Your task to perform on an android device: Open wifi settings Image 0: 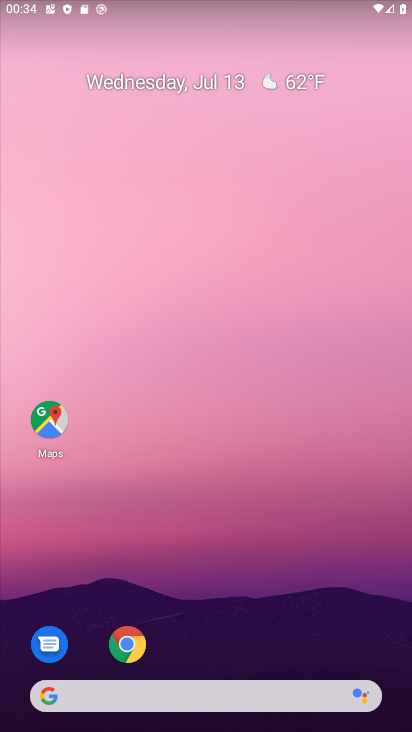
Step 0: drag from (186, 653) to (241, 0)
Your task to perform on an android device: Open wifi settings Image 1: 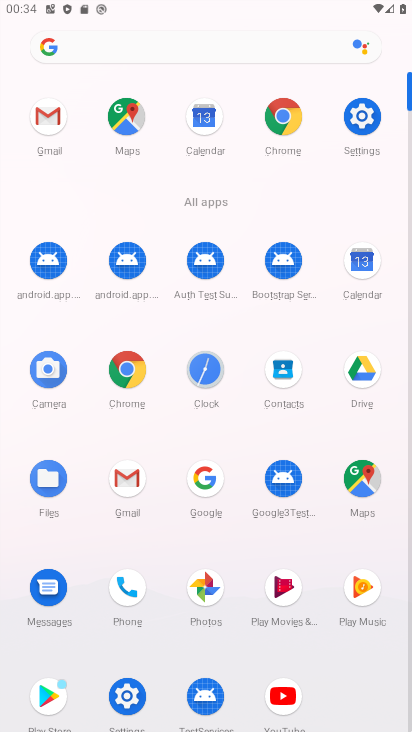
Step 1: click (353, 154)
Your task to perform on an android device: Open wifi settings Image 2: 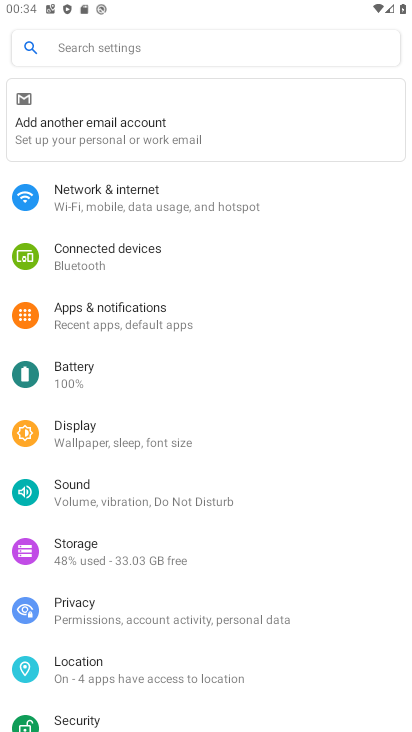
Step 2: click (146, 202)
Your task to perform on an android device: Open wifi settings Image 3: 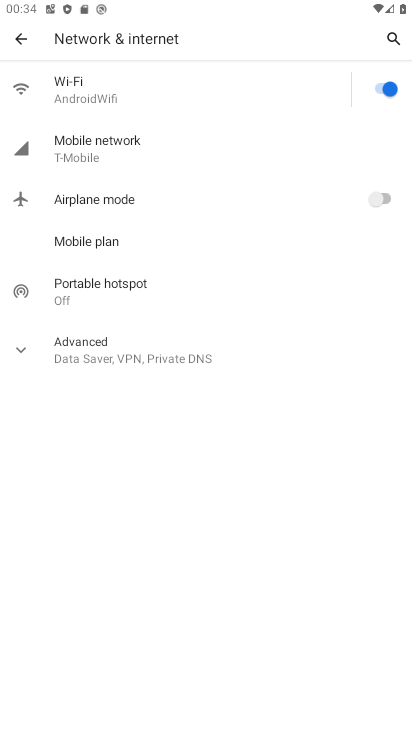
Step 3: click (98, 95)
Your task to perform on an android device: Open wifi settings Image 4: 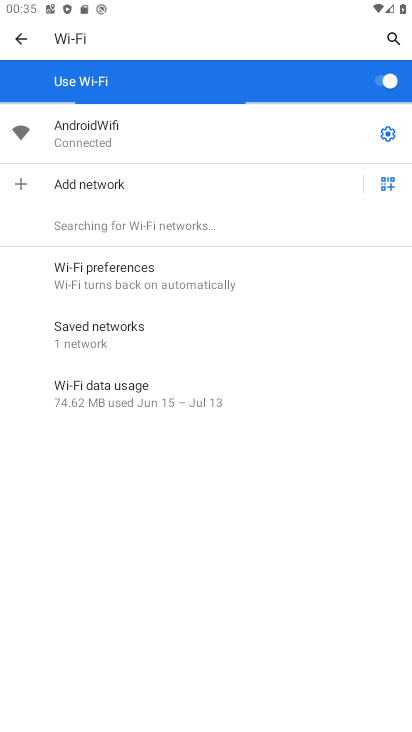
Step 4: task complete